Your task to perform on an android device: toggle show notifications on the lock screen Image 0: 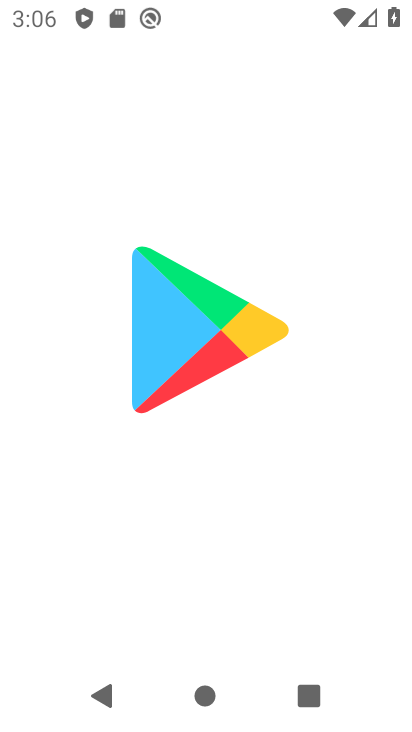
Step 0: drag from (327, 532) to (277, 108)
Your task to perform on an android device: toggle show notifications on the lock screen Image 1: 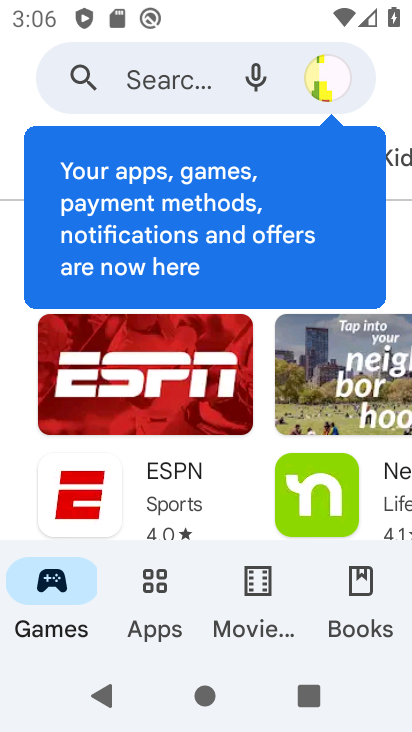
Step 1: press home button
Your task to perform on an android device: toggle show notifications on the lock screen Image 2: 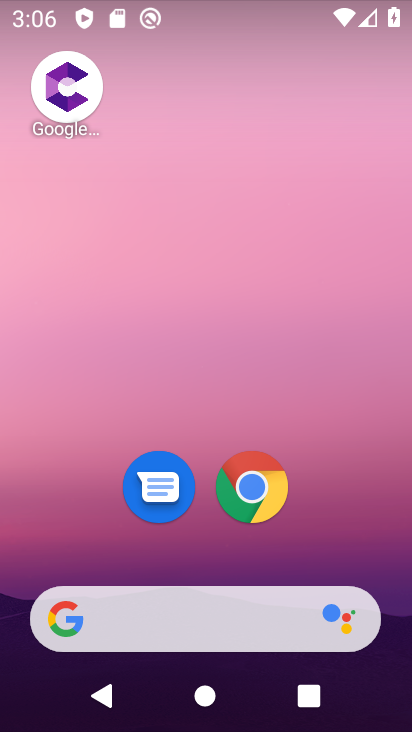
Step 2: drag from (322, 537) to (260, 68)
Your task to perform on an android device: toggle show notifications on the lock screen Image 3: 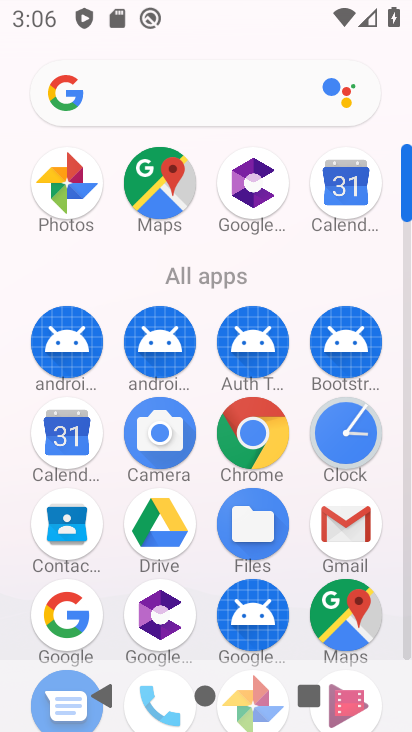
Step 3: drag from (102, 278) to (112, 100)
Your task to perform on an android device: toggle show notifications on the lock screen Image 4: 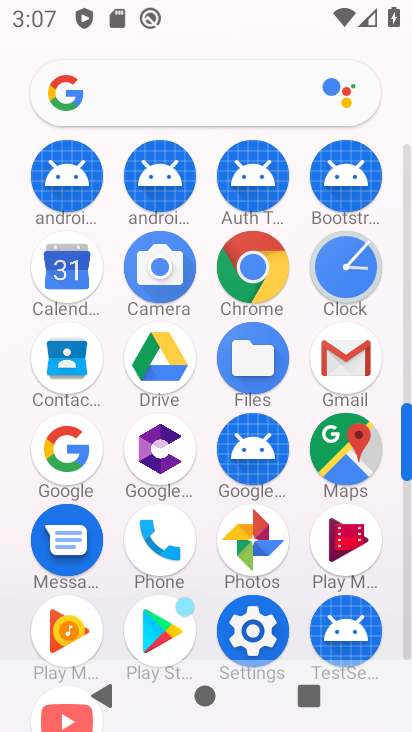
Step 4: click (253, 629)
Your task to perform on an android device: toggle show notifications on the lock screen Image 5: 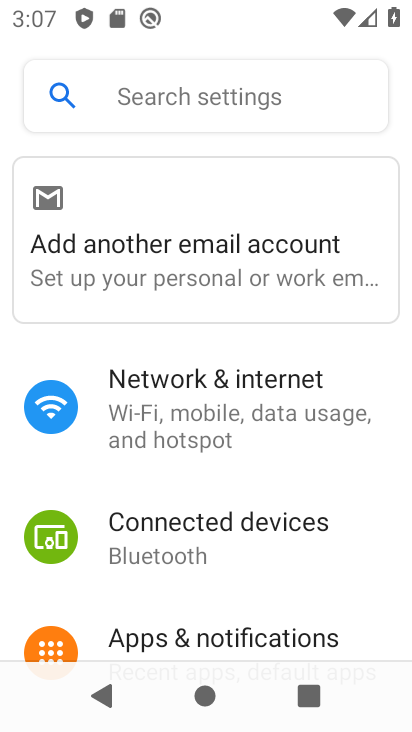
Step 5: drag from (191, 587) to (220, 311)
Your task to perform on an android device: toggle show notifications on the lock screen Image 6: 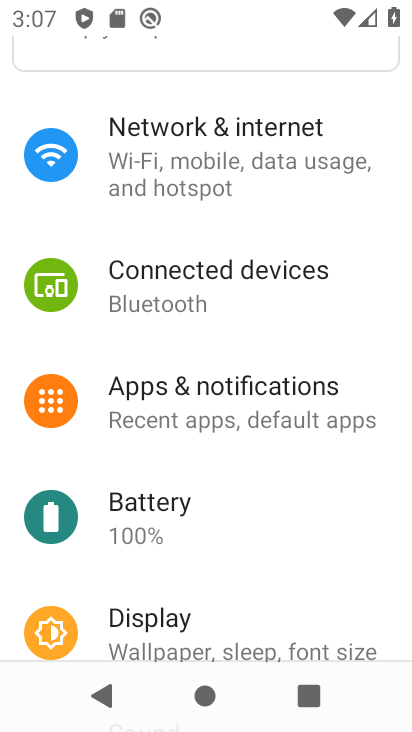
Step 6: click (198, 418)
Your task to perform on an android device: toggle show notifications on the lock screen Image 7: 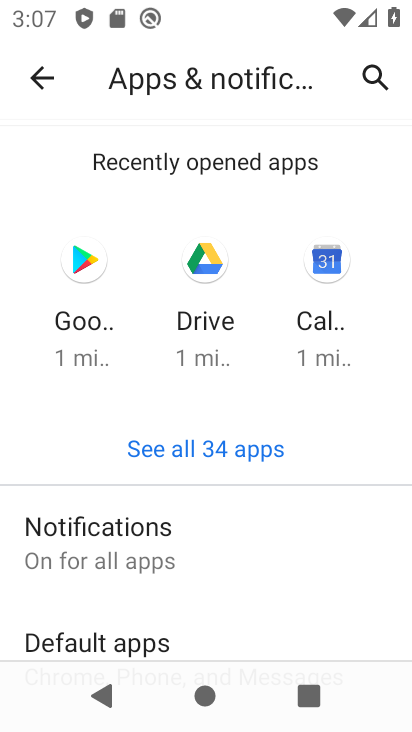
Step 7: click (124, 547)
Your task to perform on an android device: toggle show notifications on the lock screen Image 8: 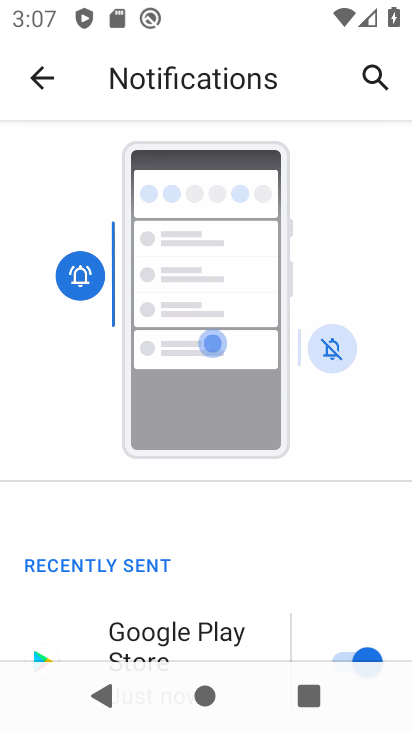
Step 8: drag from (225, 570) to (230, 348)
Your task to perform on an android device: toggle show notifications on the lock screen Image 9: 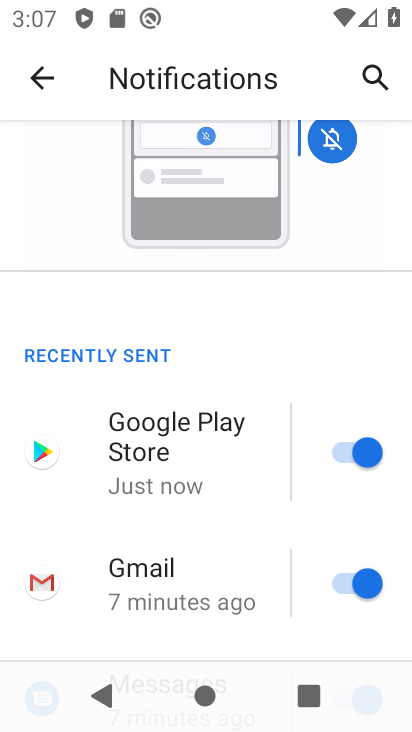
Step 9: drag from (182, 525) to (196, 282)
Your task to perform on an android device: toggle show notifications on the lock screen Image 10: 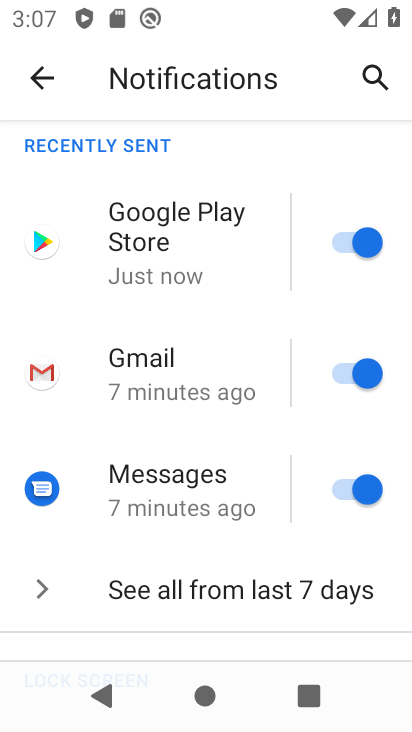
Step 10: drag from (162, 544) to (162, 258)
Your task to perform on an android device: toggle show notifications on the lock screen Image 11: 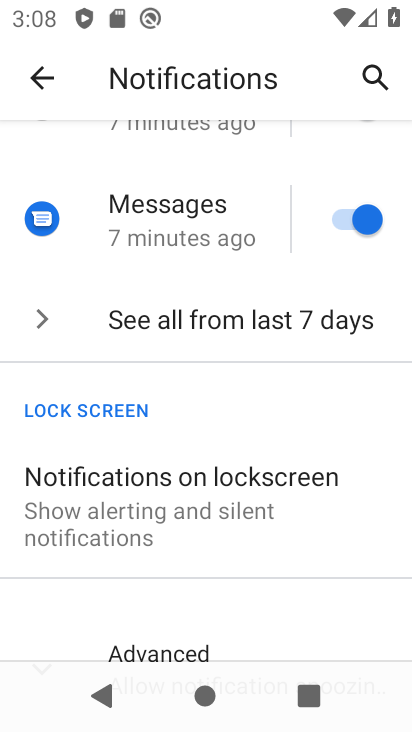
Step 11: click (176, 478)
Your task to perform on an android device: toggle show notifications on the lock screen Image 12: 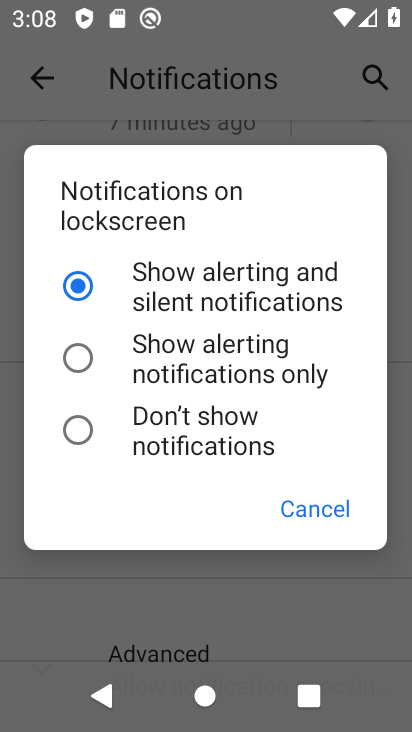
Step 12: click (85, 435)
Your task to perform on an android device: toggle show notifications on the lock screen Image 13: 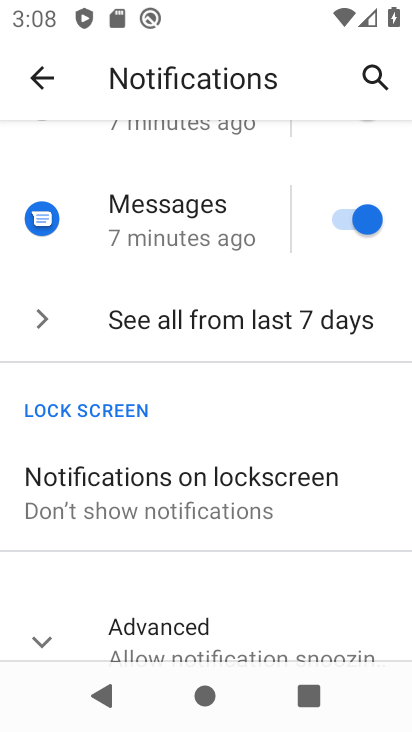
Step 13: task complete